Your task to perform on an android device: Open accessibility settings Image 0: 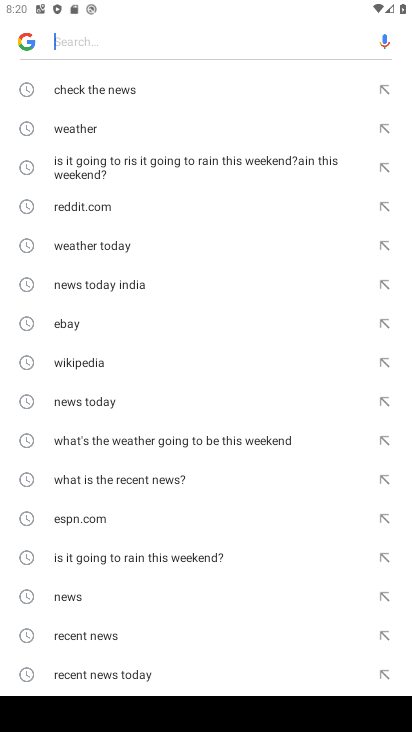
Step 0: press home button
Your task to perform on an android device: Open accessibility settings Image 1: 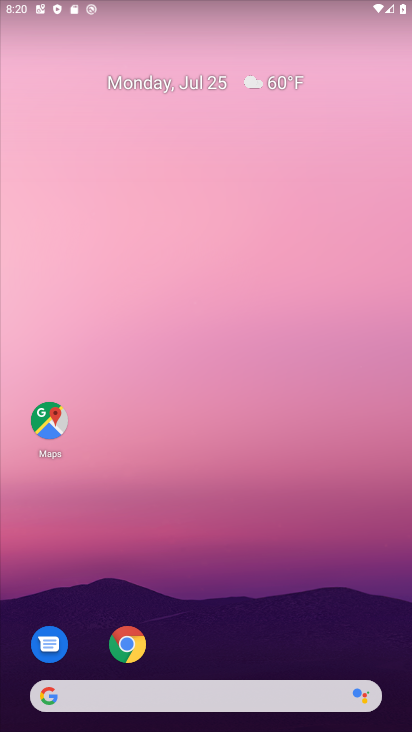
Step 1: drag from (285, 629) to (319, 284)
Your task to perform on an android device: Open accessibility settings Image 2: 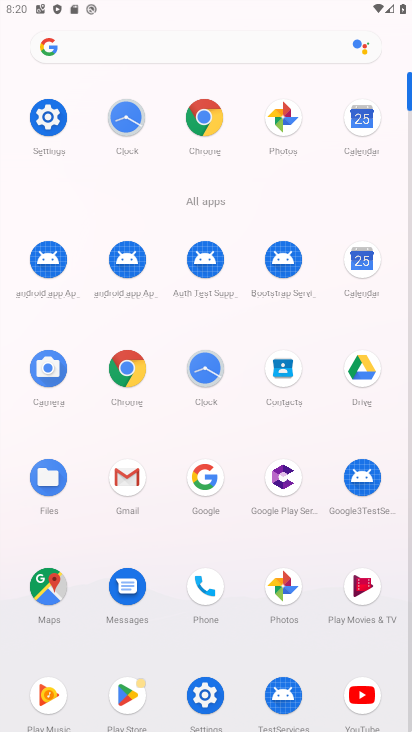
Step 2: click (211, 688)
Your task to perform on an android device: Open accessibility settings Image 3: 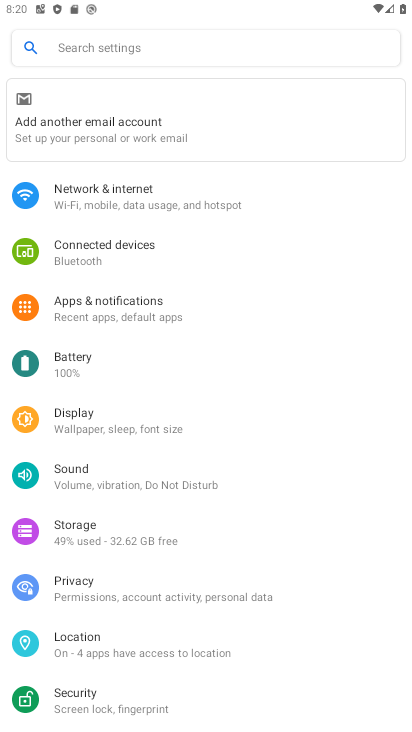
Step 3: drag from (264, 581) to (292, 336)
Your task to perform on an android device: Open accessibility settings Image 4: 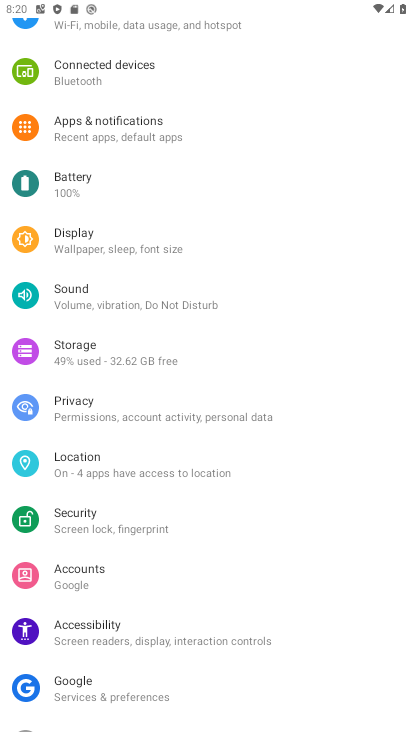
Step 4: click (186, 626)
Your task to perform on an android device: Open accessibility settings Image 5: 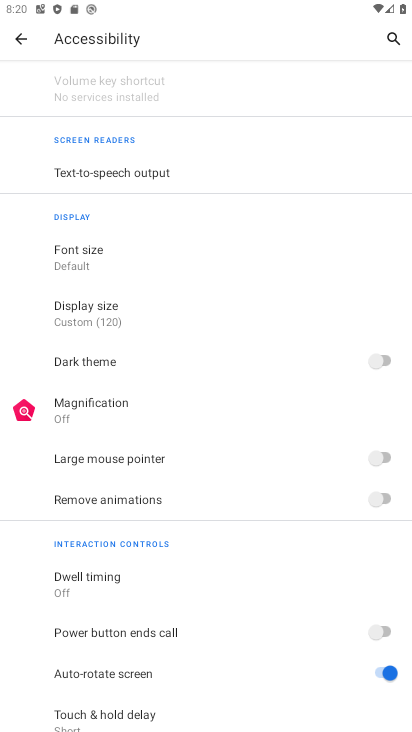
Step 5: task complete